Your task to perform on an android device: Go to settings Image 0: 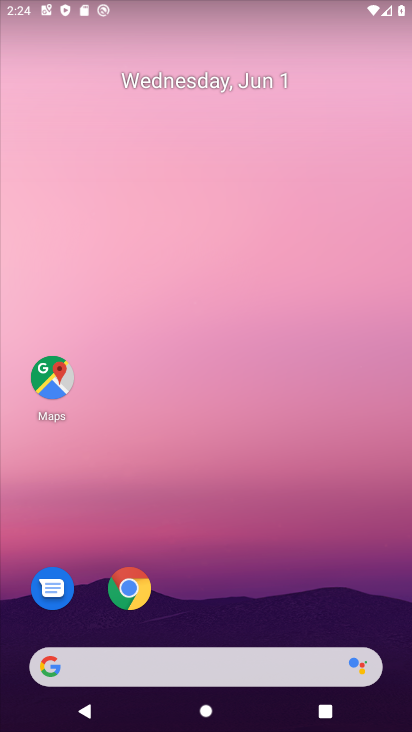
Step 0: drag from (187, 593) to (238, 34)
Your task to perform on an android device: Go to settings Image 1: 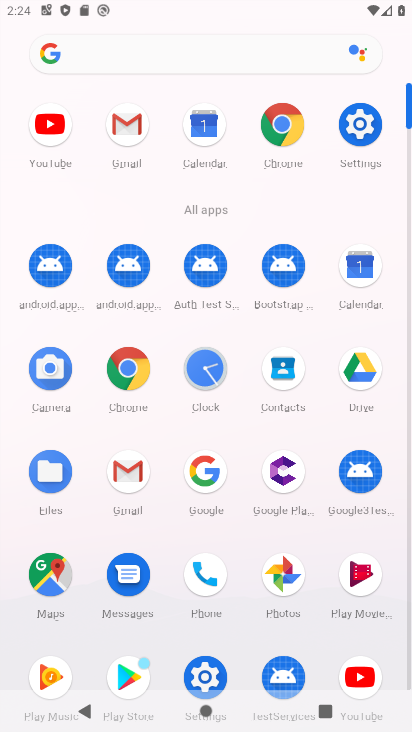
Step 1: click (363, 125)
Your task to perform on an android device: Go to settings Image 2: 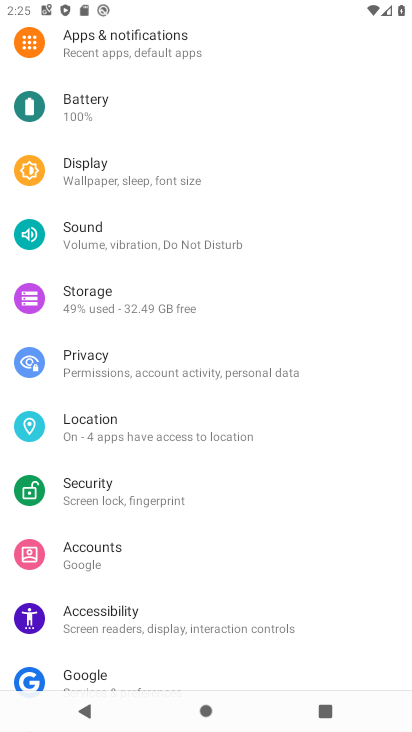
Step 2: task complete